Your task to perform on an android device: Go to Maps Image 0: 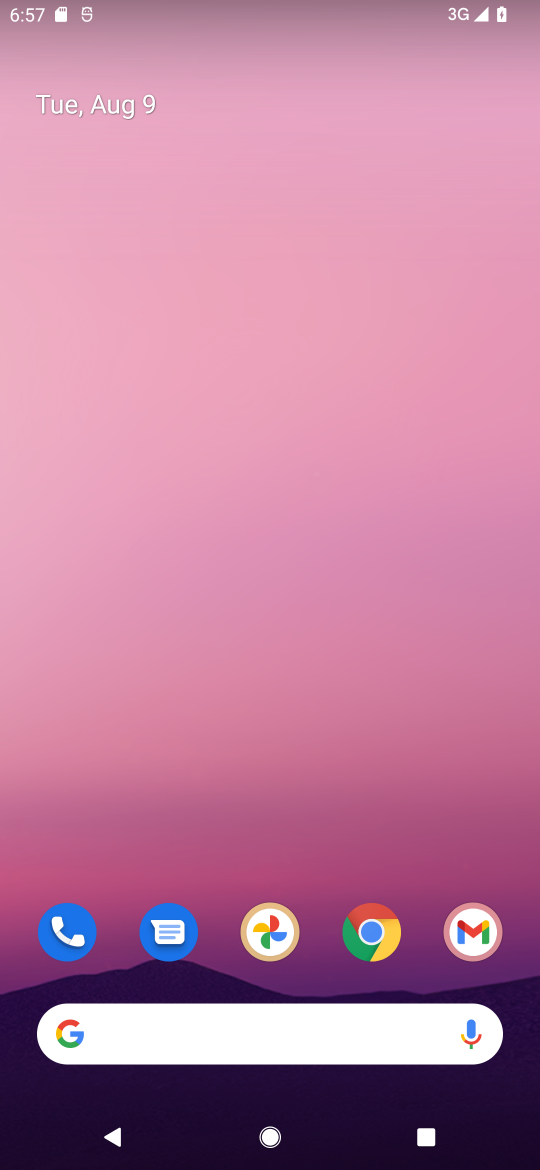
Step 0: drag from (256, 978) to (232, 375)
Your task to perform on an android device: Go to Maps Image 1: 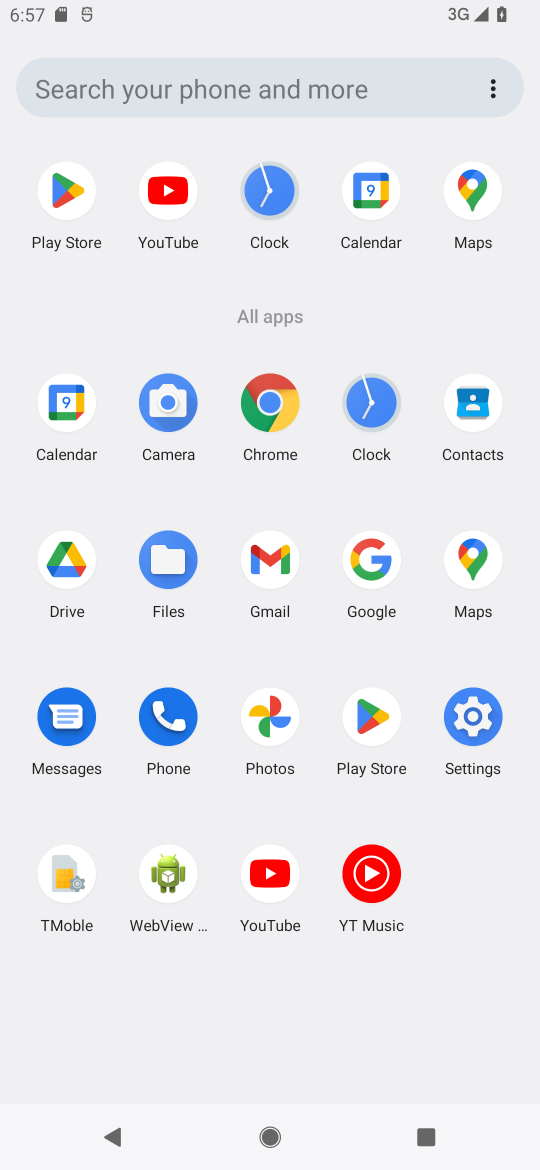
Step 1: click (475, 581)
Your task to perform on an android device: Go to Maps Image 2: 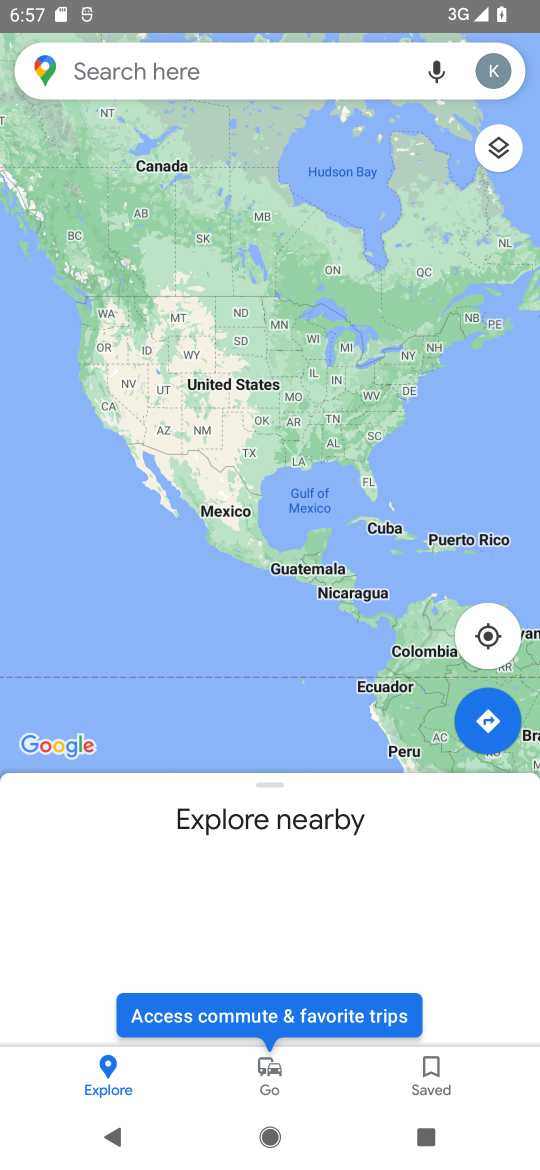
Step 2: task complete